Your task to perform on an android device: see tabs open on other devices in the chrome app Image 0: 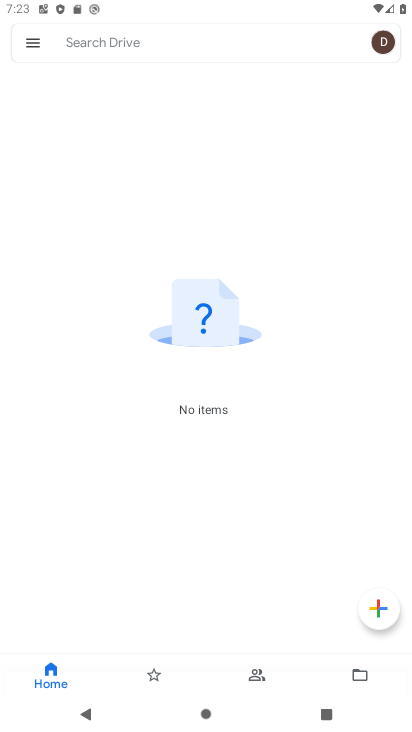
Step 0: press home button
Your task to perform on an android device: see tabs open on other devices in the chrome app Image 1: 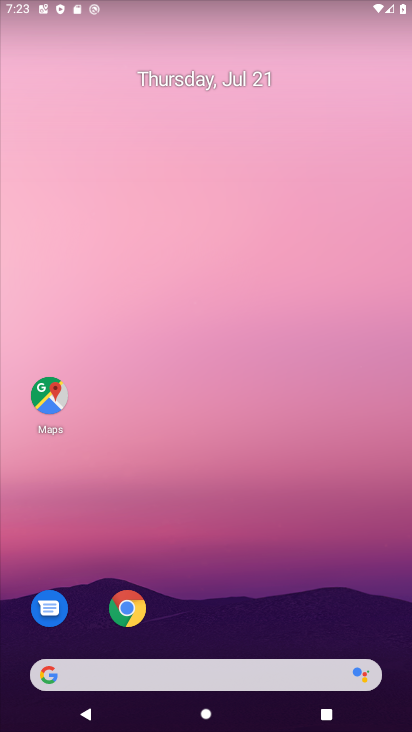
Step 1: click (128, 606)
Your task to perform on an android device: see tabs open on other devices in the chrome app Image 2: 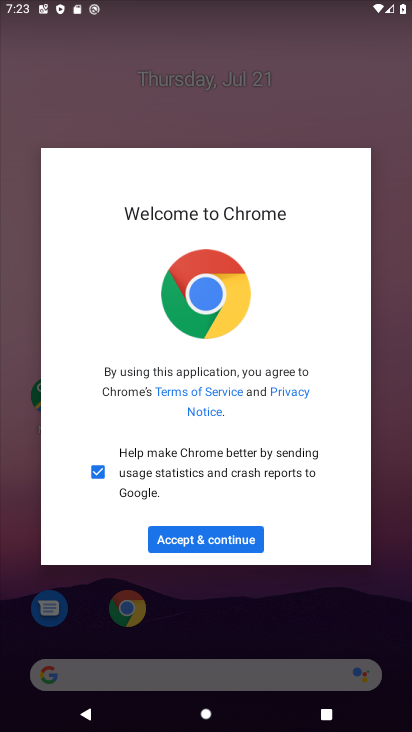
Step 2: click (177, 545)
Your task to perform on an android device: see tabs open on other devices in the chrome app Image 3: 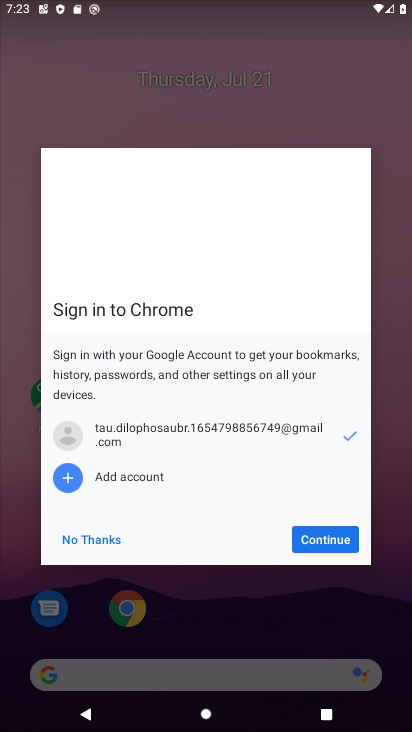
Step 3: click (310, 538)
Your task to perform on an android device: see tabs open on other devices in the chrome app Image 4: 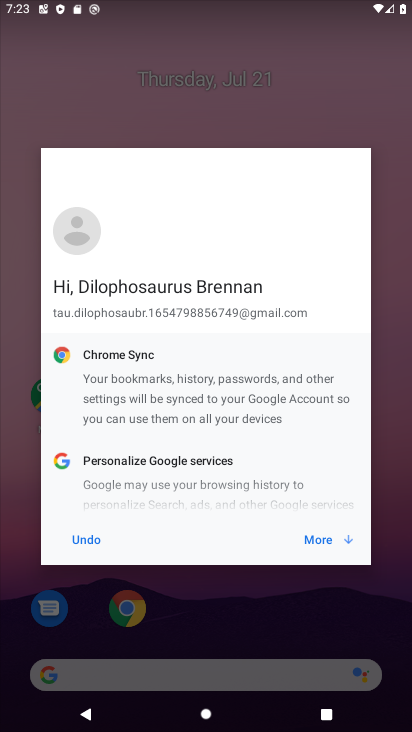
Step 4: click (312, 538)
Your task to perform on an android device: see tabs open on other devices in the chrome app Image 5: 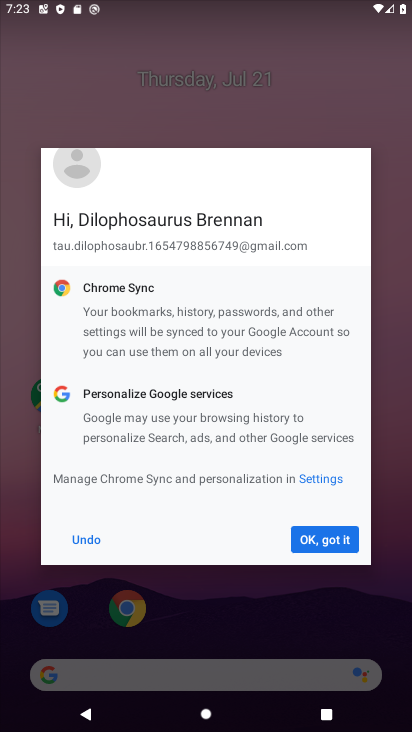
Step 5: click (312, 538)
Your task to perform on an android device: see tabs open on other devices in the chrome app Image 6: 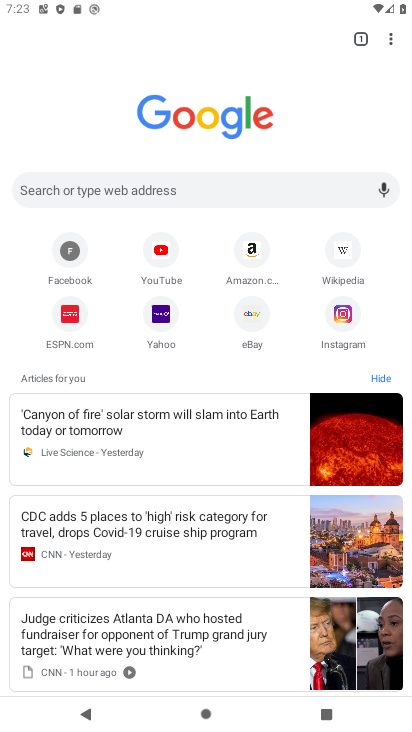
Step 6: click (390, 38)
Your task to perform on an android device: see tabs open on other devices in the chrome app Image 7: 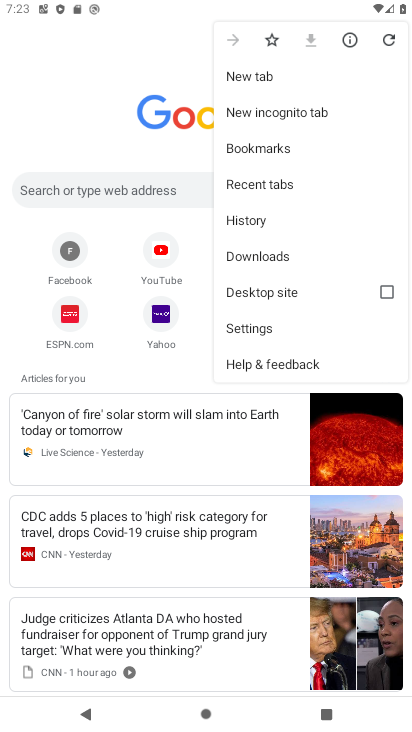
Step 7: click (273, 186)
Your task to perform on an android device: see tabs open on other devices in the chrome app Image 8: 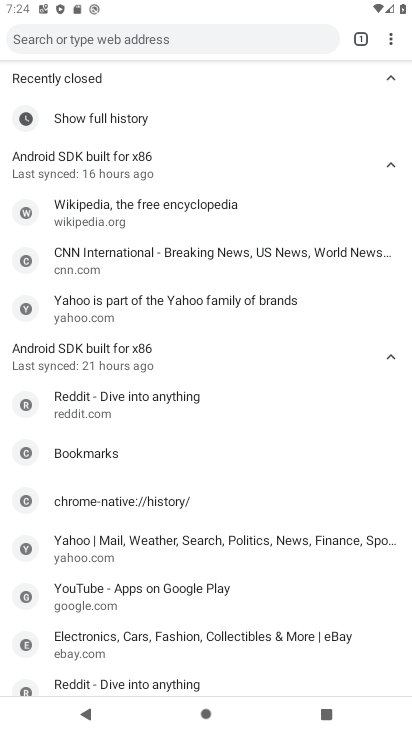
Step 8: task complete